Your task to perform on an android device: Go to Google maps Image 0: 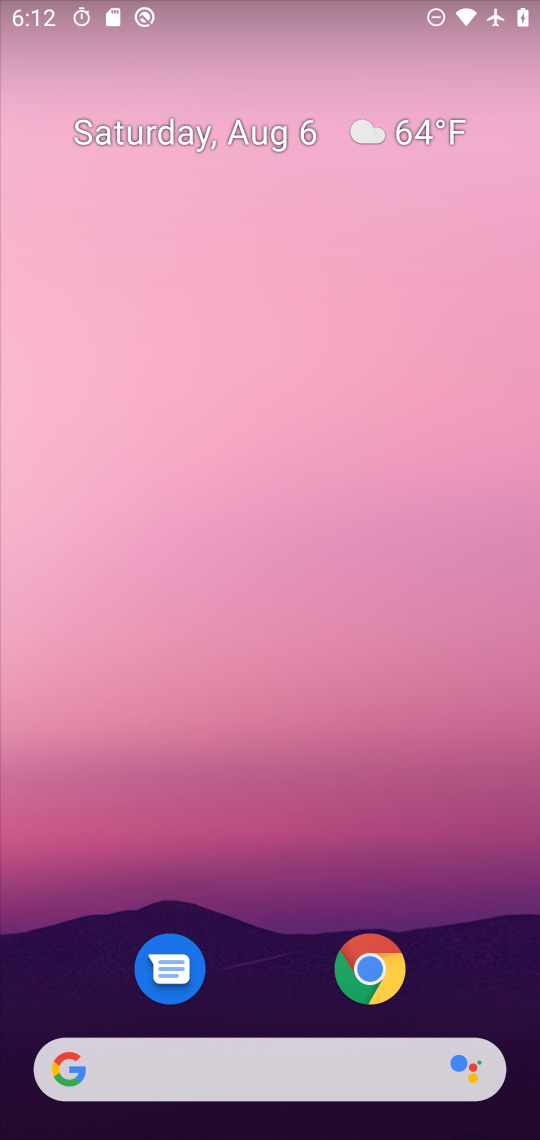
Step 0: drag from (314, 837) to (100, 6)
Your task to perform on an android device: Go to Google maps Image 1: 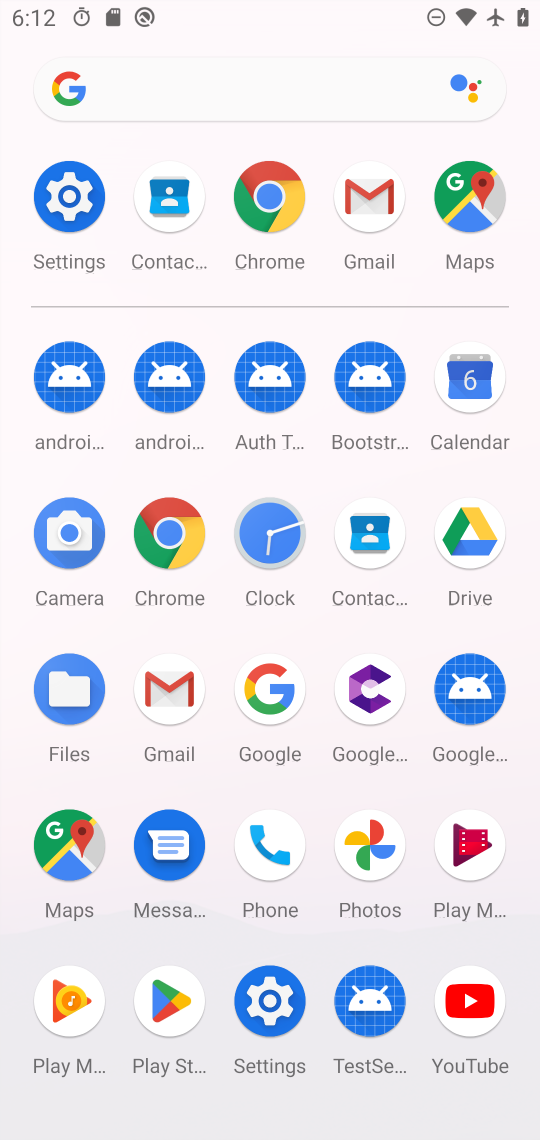
Step 1: click (68, 863)
Your task to perform on an android device: Go to Google maps Image 2: 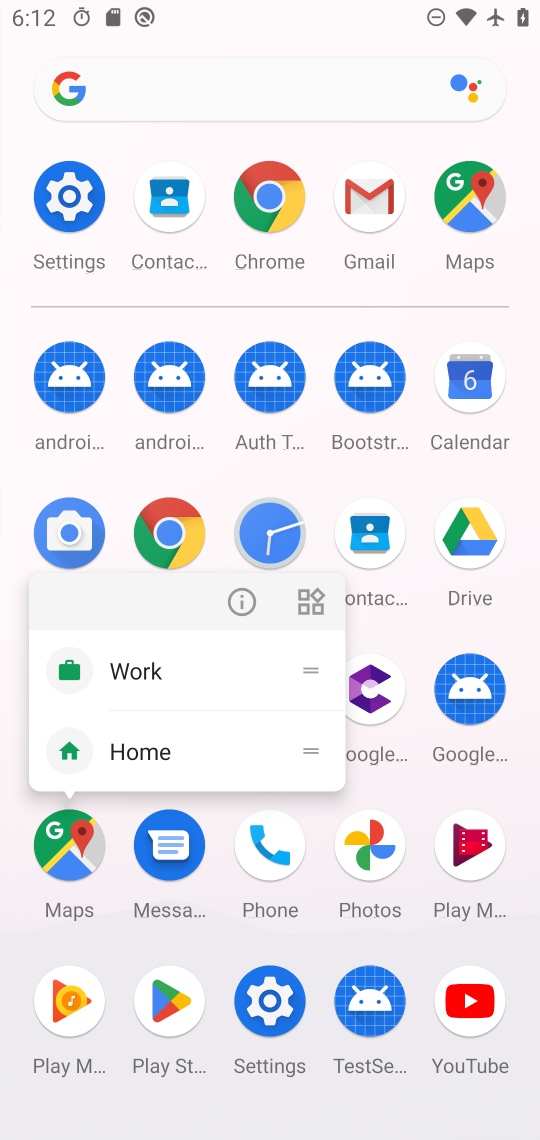
Step 2: click (69, 846)
Your task to perform on an android device: Go to Google maps Image 3: 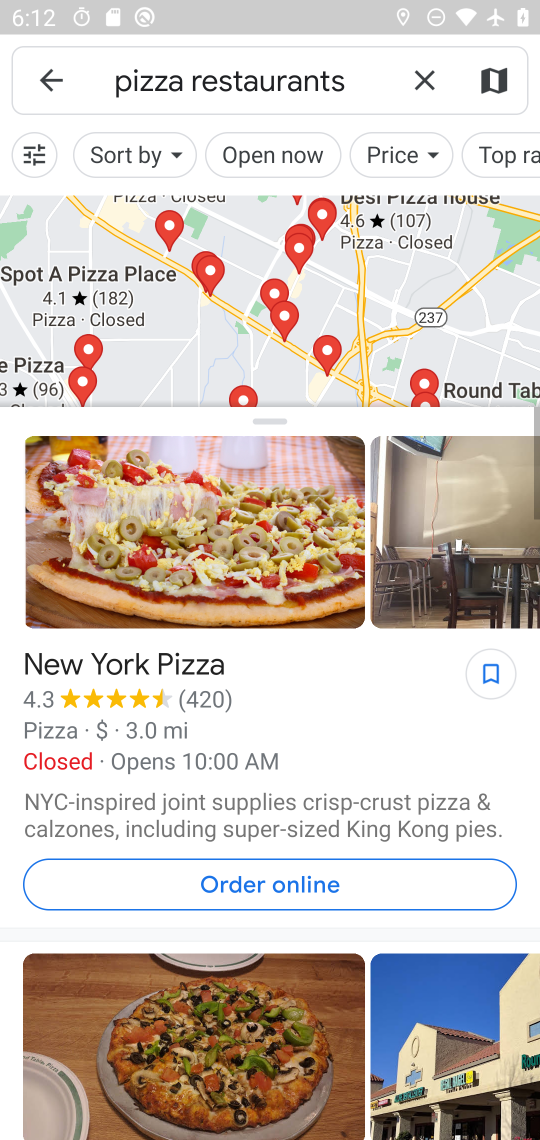
Step 3: click (38, 83)
Your task to perform on an android device: Go to Google maps Image 4: 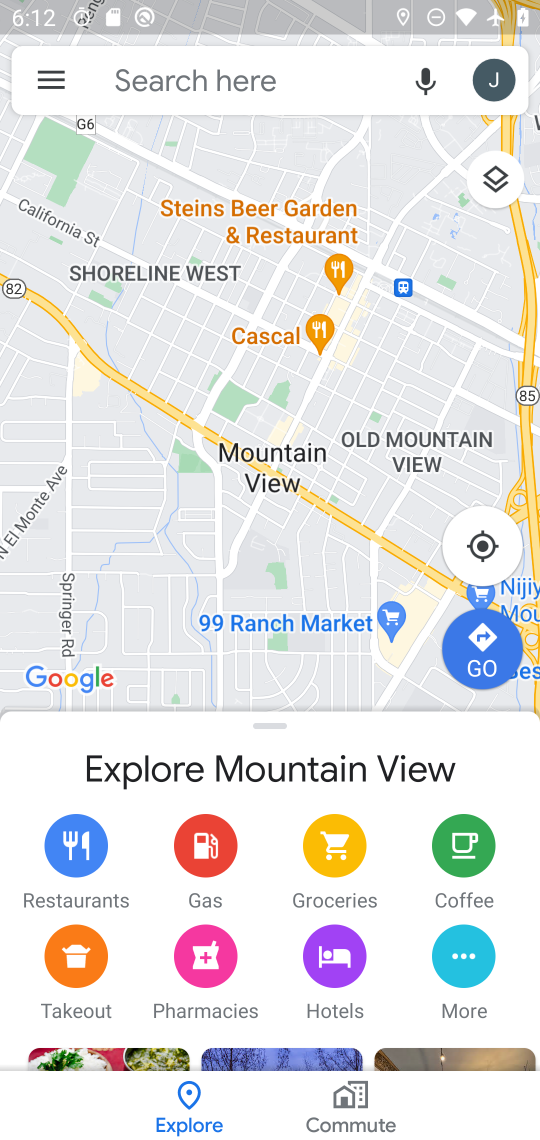
Step 4: task complete